Your task to perform on an android device: clear all cookies in the chrome app Image 0: 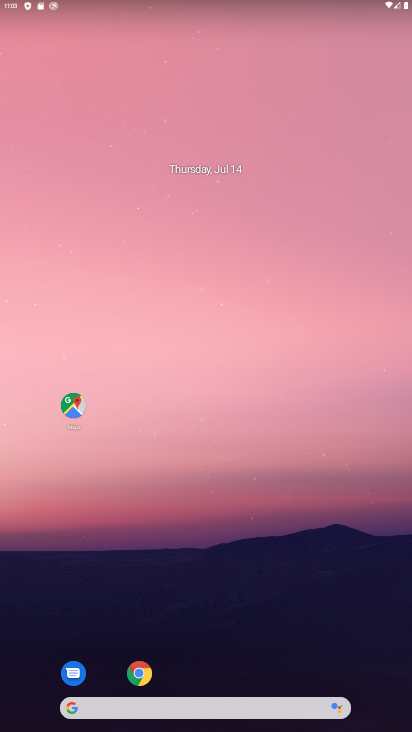
Step 0: click (142, 677)
Your task to perform on an android device: clear all cookies in the chrome app Image 1: 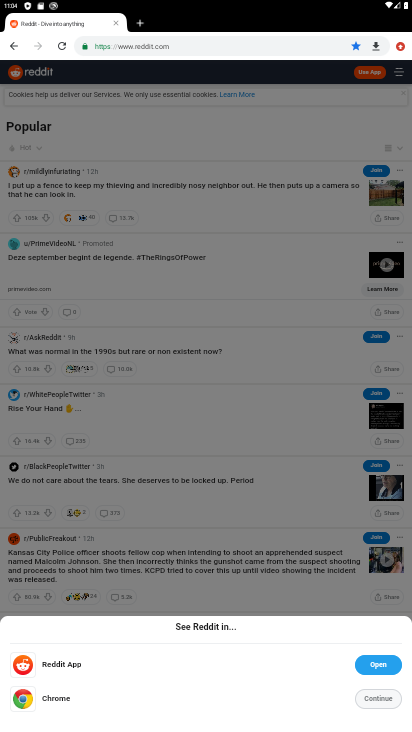
Step 1: click (371, 151)
Your task to perform on an android device: clear all cookies in the chrome app Image 2: 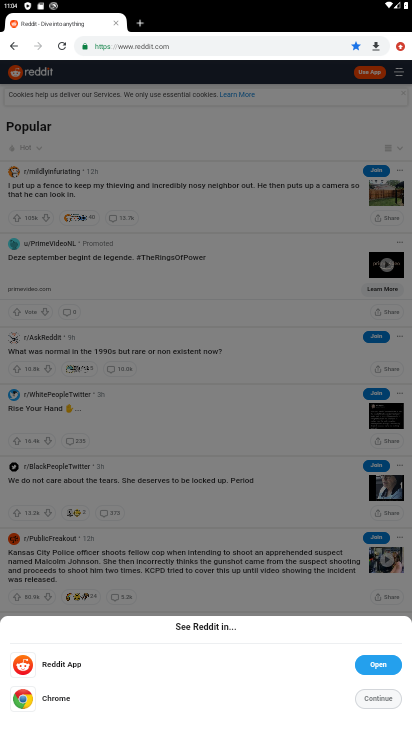
Step 2: click (397, 41)
Your task to perform on an android device: clear all cookies in the chrome app Image 3: 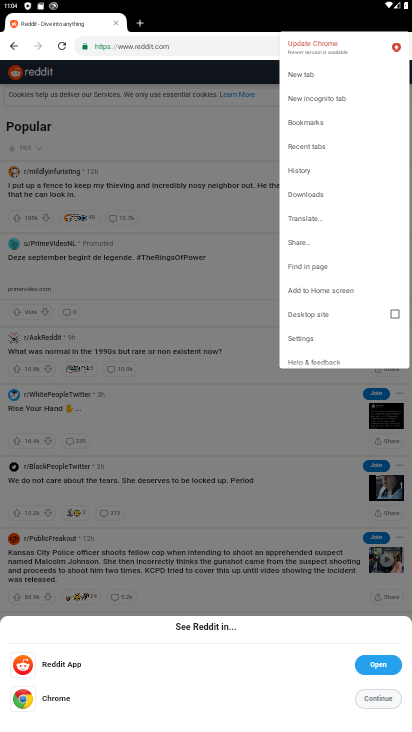
Step 3: click (298, 171)
Your task to perform on an android device: clear all cookies in the chrome app Image 4: 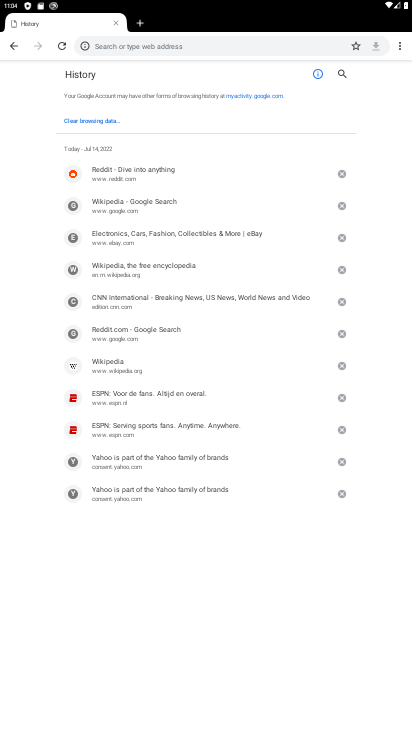
Step 4: click (88, 118)
Your task to perform on an android device: clear all cookies in the chrome app Image 5: 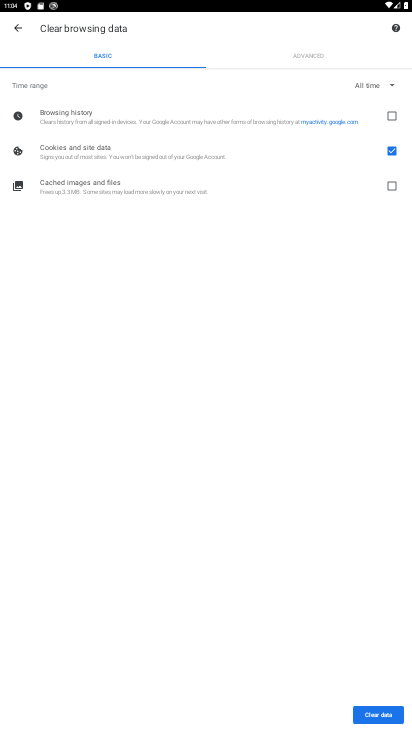
Step 5: click (382, 718)
Your task to perform on an android device: clear all cookies in the chrome app Image 6: 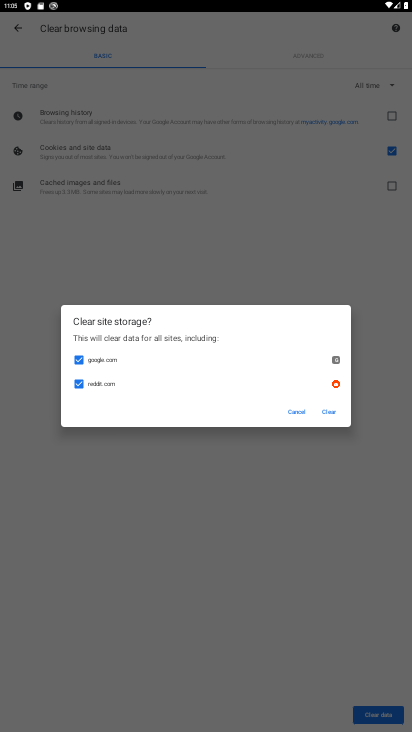
Step 6: click (326, 410)
Your task to perform on an android device: clear all cookies in the chrome app Image 7: 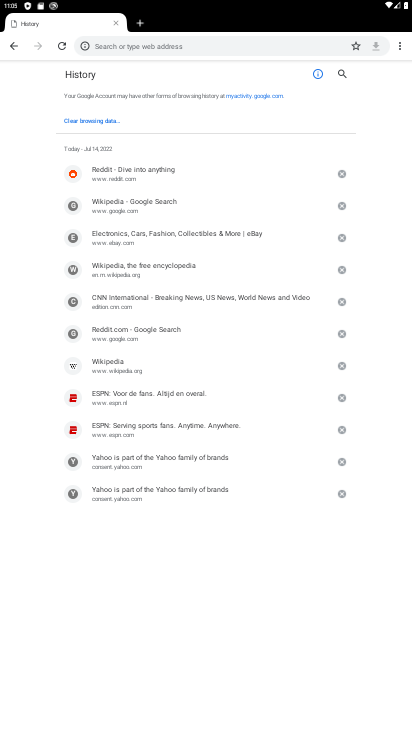
Step 7: task complete